Your task to perform on an android device: Open maps Image 0: 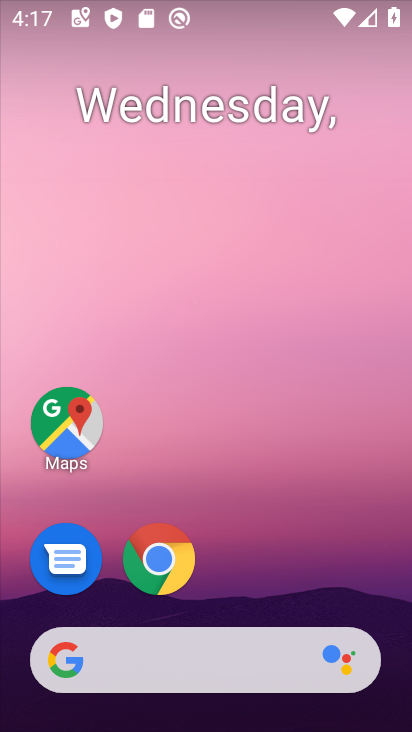
Step 0: click (66, 413)
Your task to perform on an android device: Open maps Image 1: 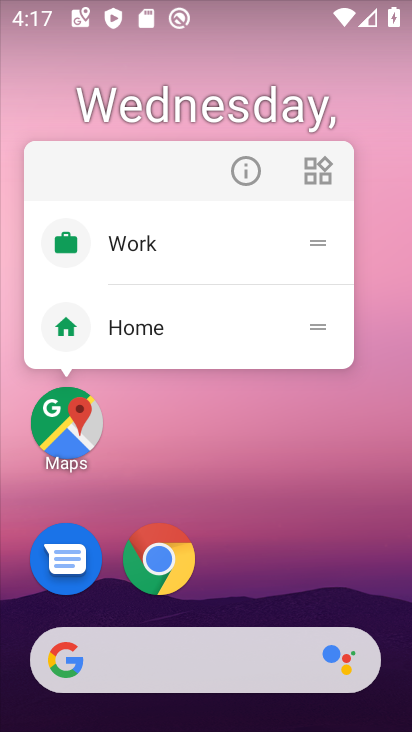
Step 1: click (70, 420)
Your task to perform on an android device: Open maps Image 2: 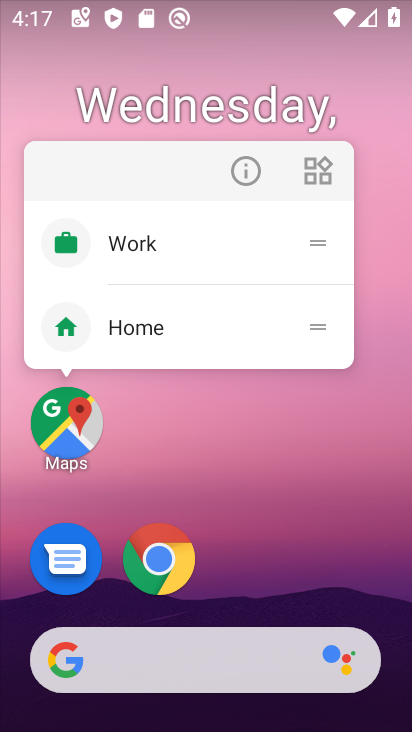
Step 2: click (63, 422)
Your task to perform on an android device: Open maps Image 3: 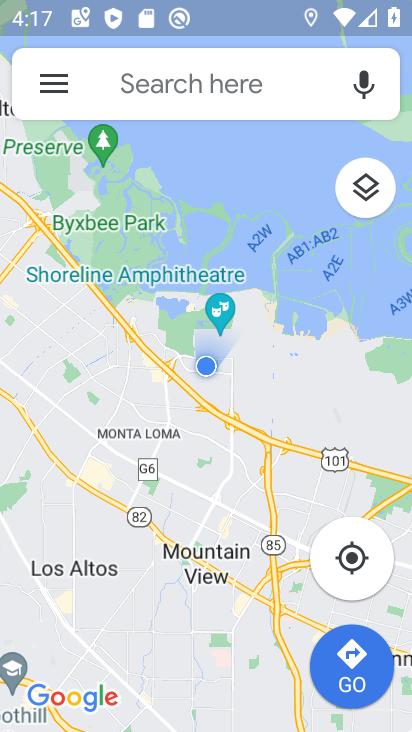
Step 3: task complete